Your task to perform on an android device: Open Amazon Image 0: 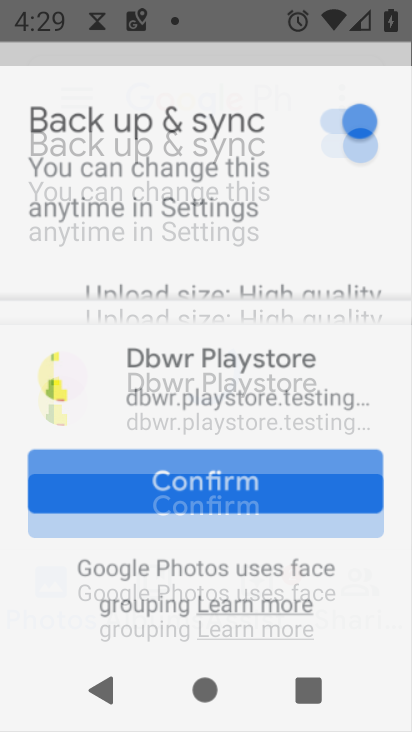
Step 0: drag from (274, 591) to (284, 395)
Your task to perform on an android device: Open Amazon Image 1: 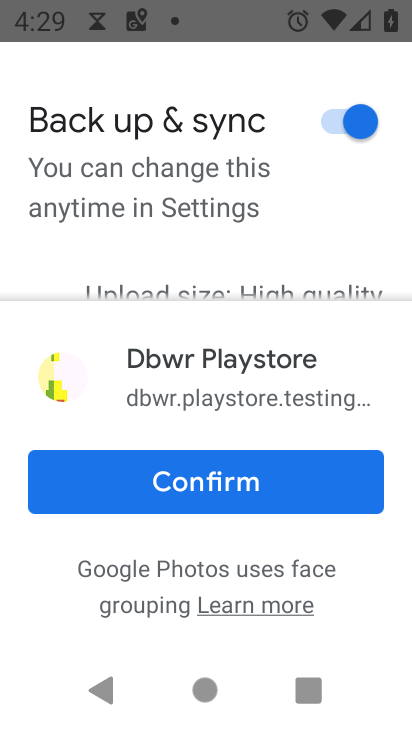
Step 1: press home button
Your task to perform on an android device: Open Amazon Image 2: 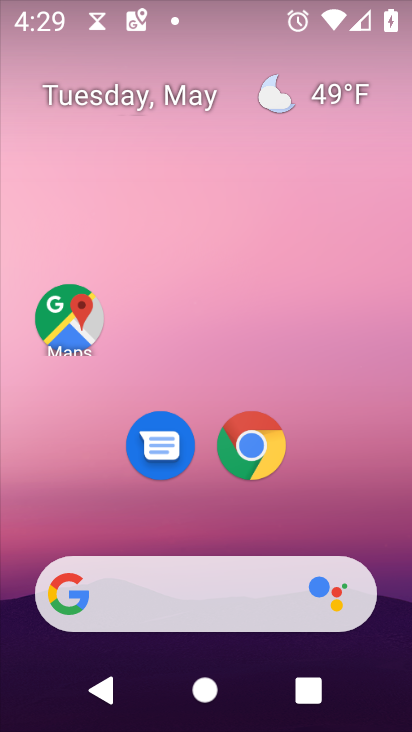
Step 2: drag from (299, 495) to (410, 18)
Your task to perform on an android device: Open Amazon Image 3: 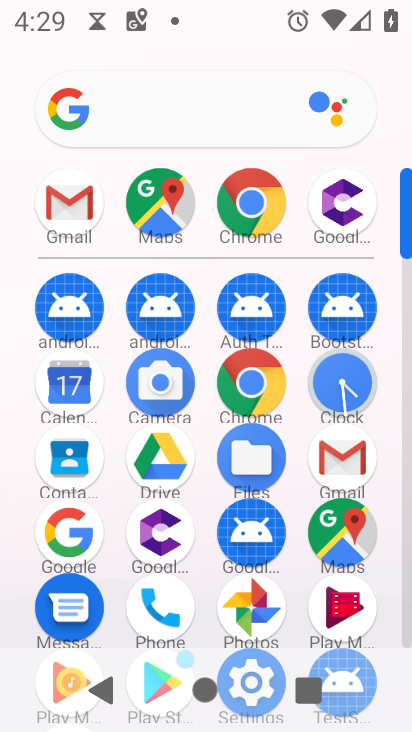
Step 3: click (264, 202)
Your task to perform on an android device: Open Amazon Image 4: 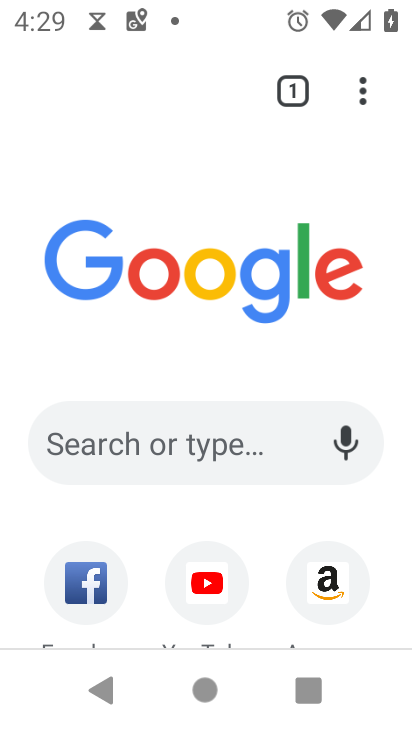
Step 4: click (333, 597)
Your task to perform on an android device: Open Amazon Image 5: 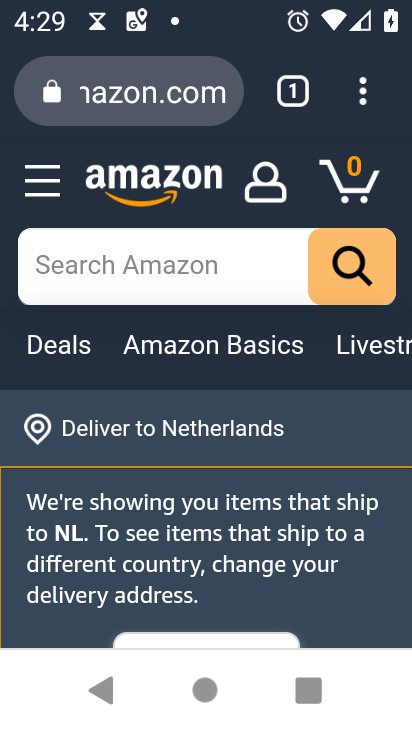
Step 5: task complete